Your task to perform on an android device: Open calendar and show me the first week of next month Image 0: 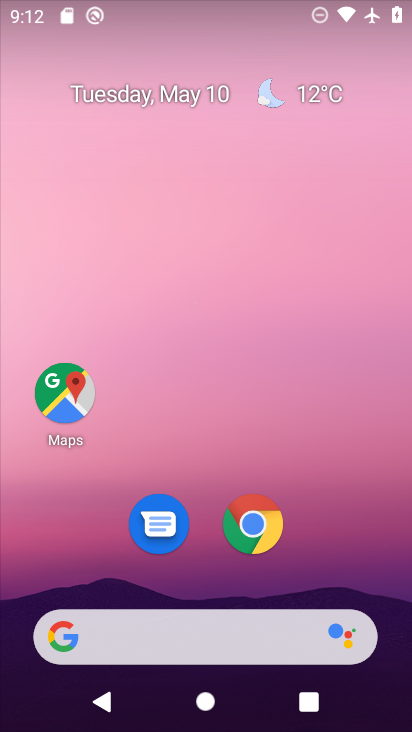
Step 0: drag from (208, 446) to (217, 49)
Your task to perform on an android device: Open calendar and show me the first week of next month Image 1: 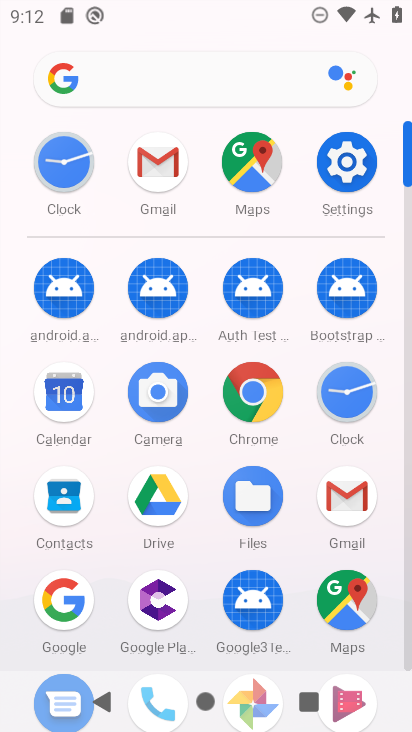
Step 1: click (67, 399)
Your task to perform on an android device: Open calendar and show me the first week of next month Image 2: 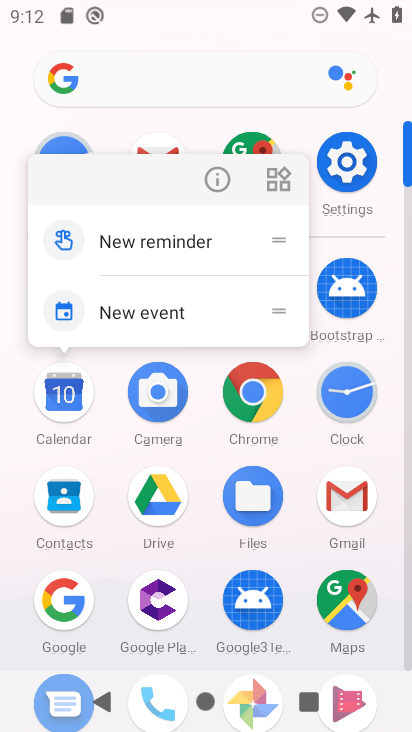
Step 2: click (67, 399)
Your task to perform on an android device: Open calendar and show me the first week of next month Image 3: 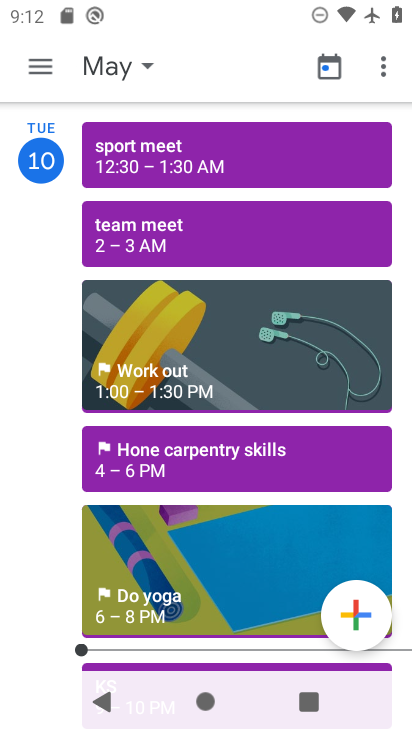
Step 3: click (38, 66)
Your task to perform on an android device: Open calendar and show me the first week of next month Image 4: 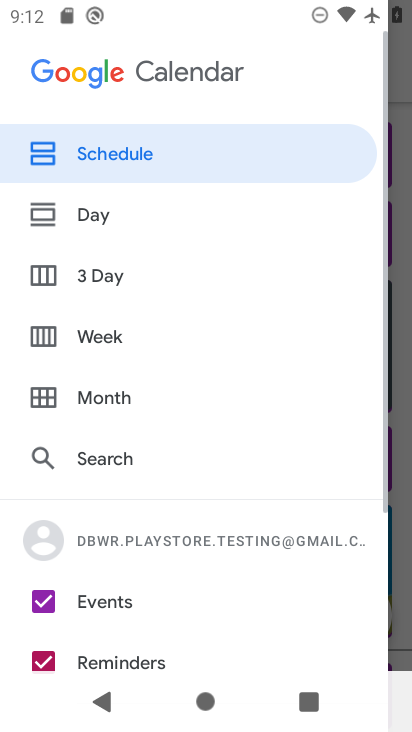
Step 4: click (108, 395)
Your task to perform on an android device: Open calendar and show me the first week of next month Image 5: 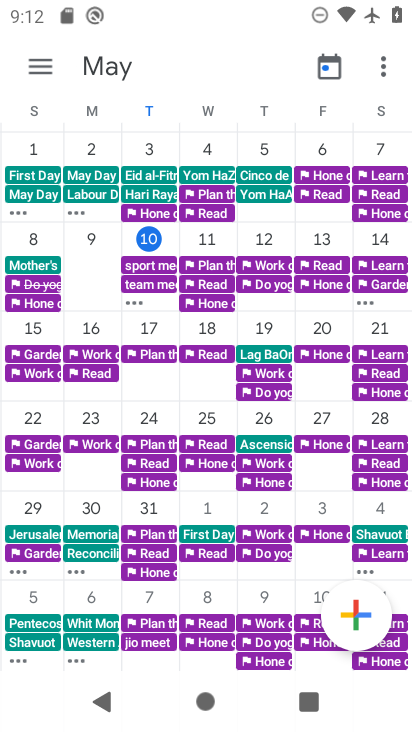
Step 5: drag from (380, 411) to (0, 381)
Your task to perform on an android device: Open calendar and show me the first week of next month Image 6: 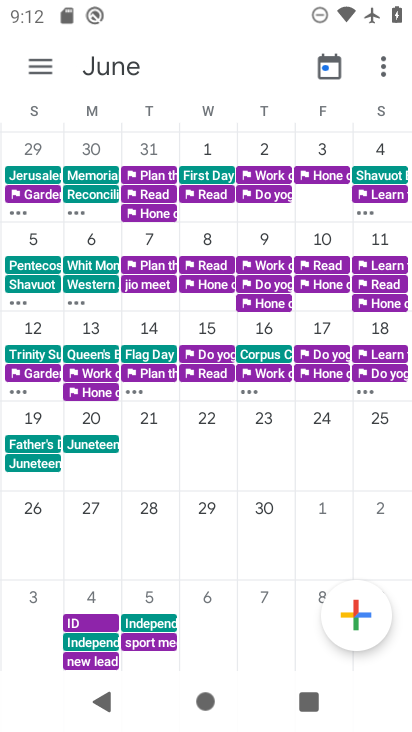
Step 6: click (31, 237)
Your task to perform on an android device: Open calendar and show me the first week of next month Image 7: 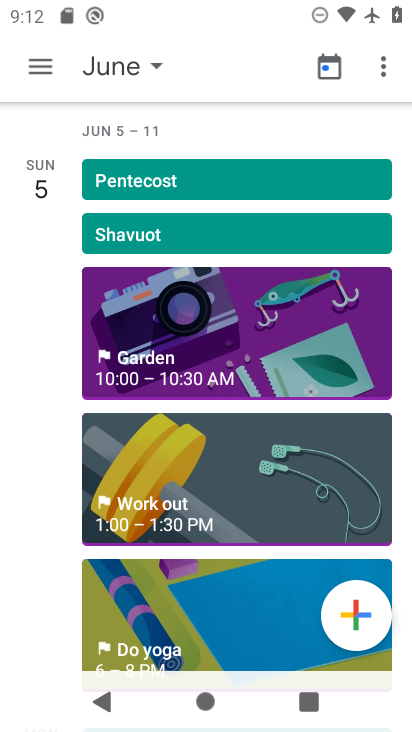
Step 7: click (31, 59)
Your task to perform on an android device: Open calendar and show me the first week of next month Image 8: 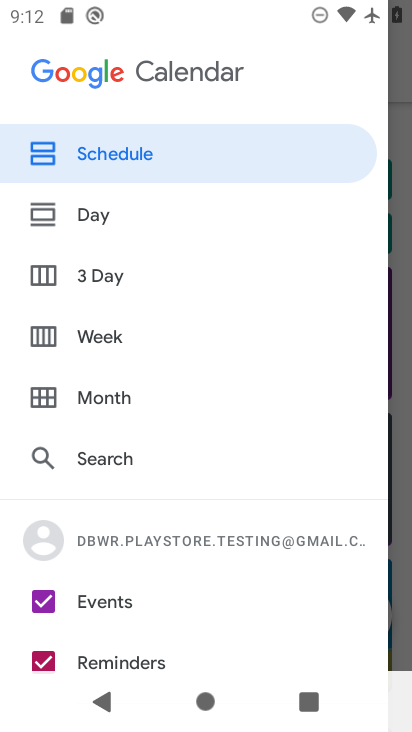
Step 8: click (39, 335)
Your task to perform on an android device: Open calendar and show me the first week of next month Image 9: 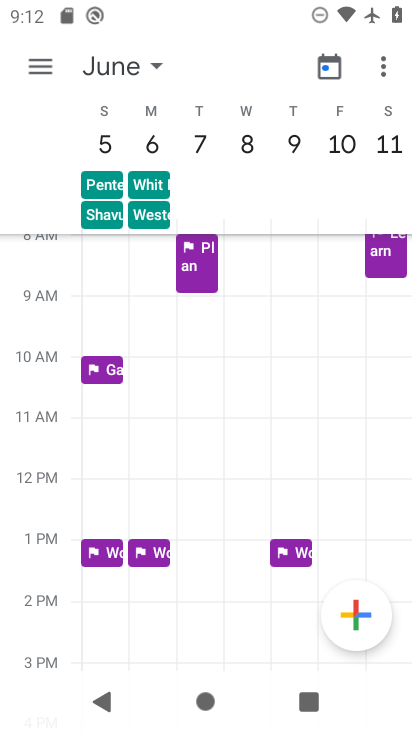
Step 9: task complete